Your task to perform on an android device: visit the assistant section in the google photos Image 0: 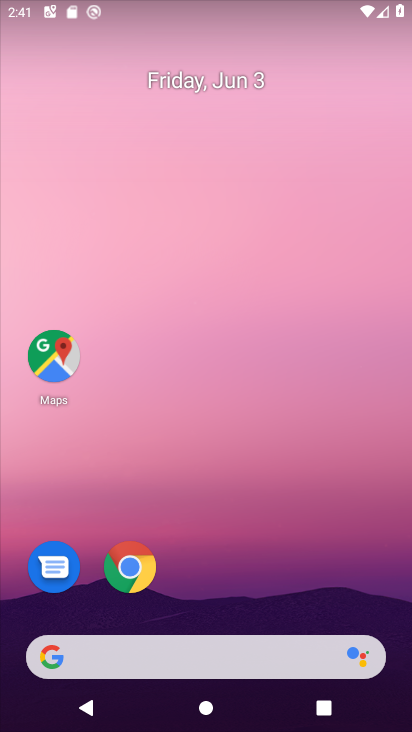
Step 0: drag from (254, 631) to (243, 208)
Your task to perform on an android device: visit the assistant section in the google photos Image 1: 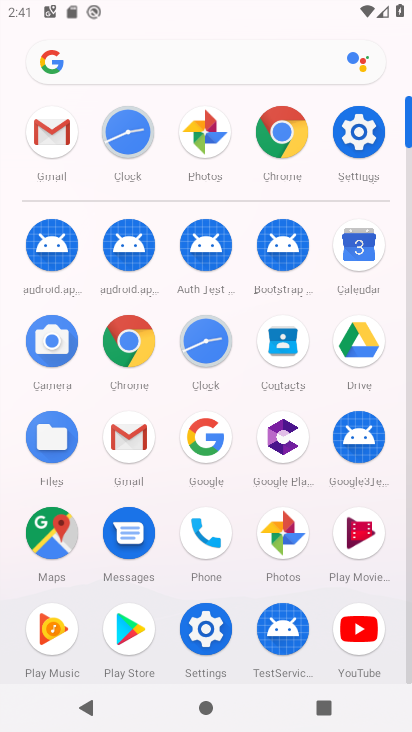
Step 1: click (295, 529)
Your task to perform on an android device: visit the assistant section in the google photos Image 2: 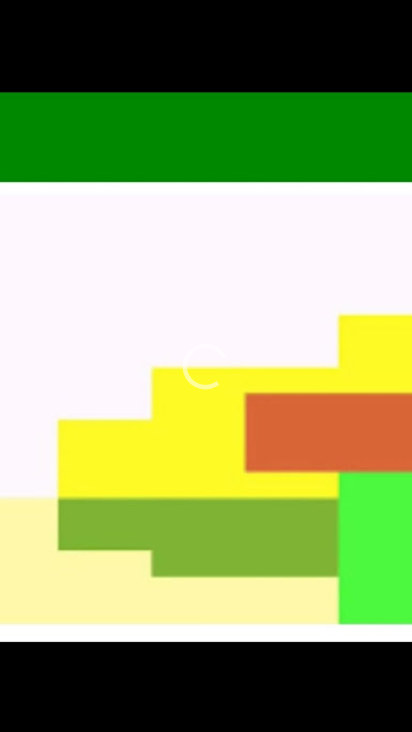
Step 2: drag from (89, 137) to (103, 414)
Your task to perform on an android device: visit the assistant section in the google photos Image 3: 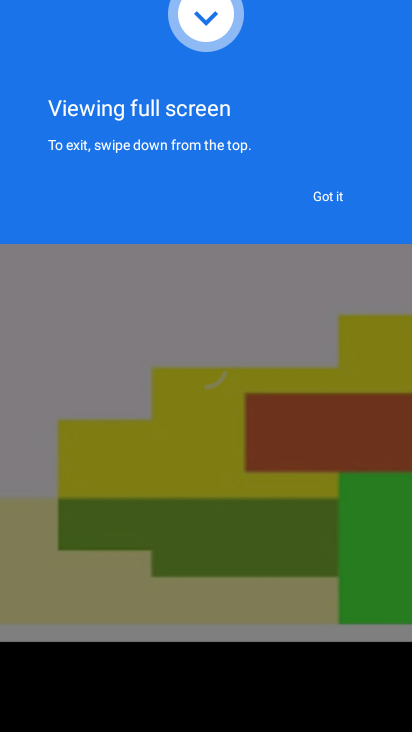
Step 3: press back button
Your task to perform on an android device: visit the assistant section in the google photos Image 4: 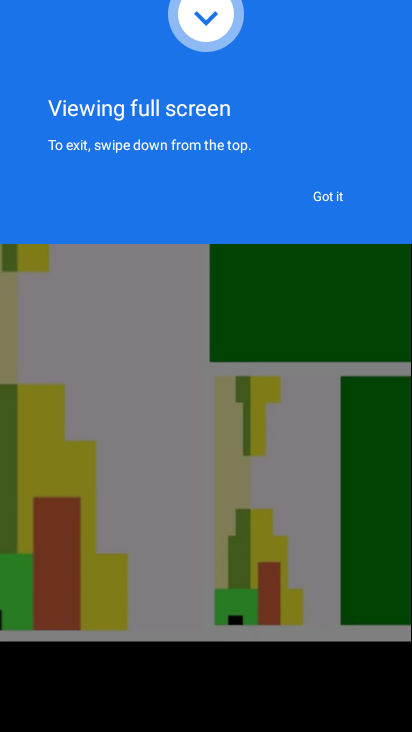
Step 4: click (333, 185)
Your task to perform on an android device: visit the assistant section in the google photos Image 5: 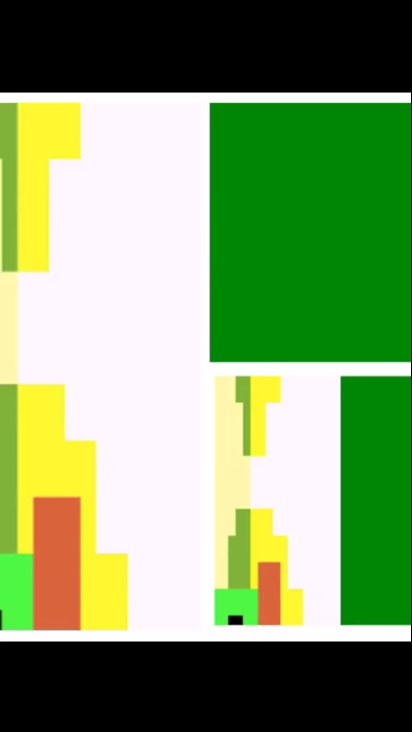
Step 5: press back button
Your task to perform on an android device: visit the assistant section in the google photos Image 6: 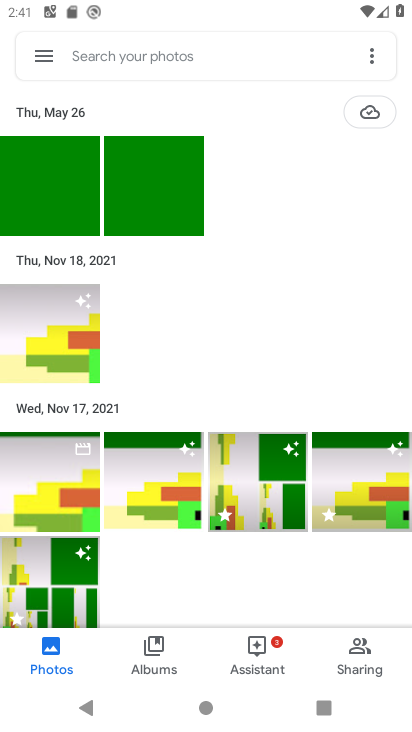
Step 6: click (15, 65)
Your task to perform on an android device: visit the assistant section in the google photos Image 7: 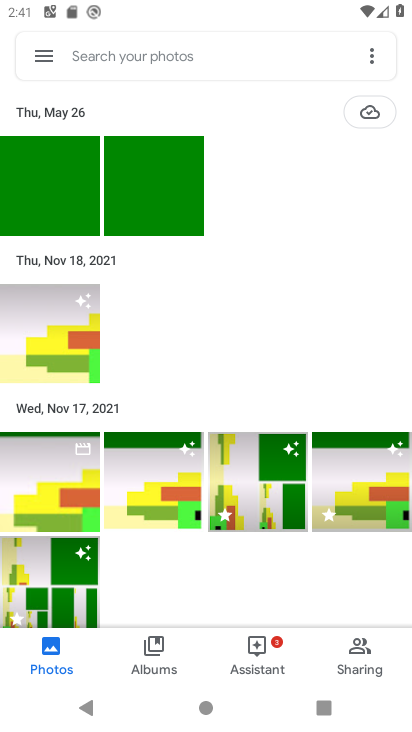
Step 7: click (255, 643)
Your task to perform on an android device: visit the assistant section in the google photos Image 8: 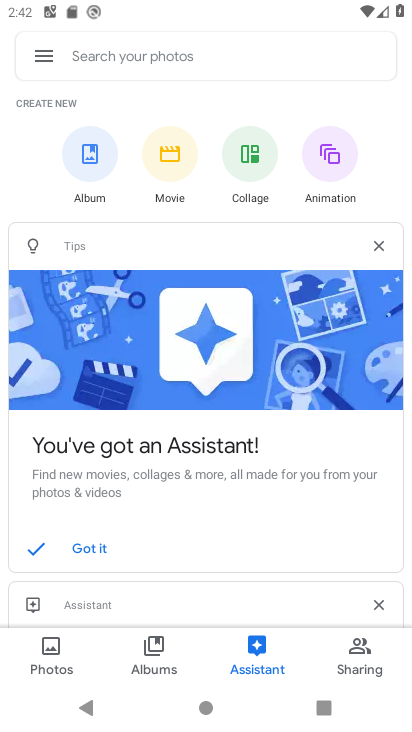
Step 8: task complete